Your task to perform on an android device: check the backup settings in the google photos Image 0: 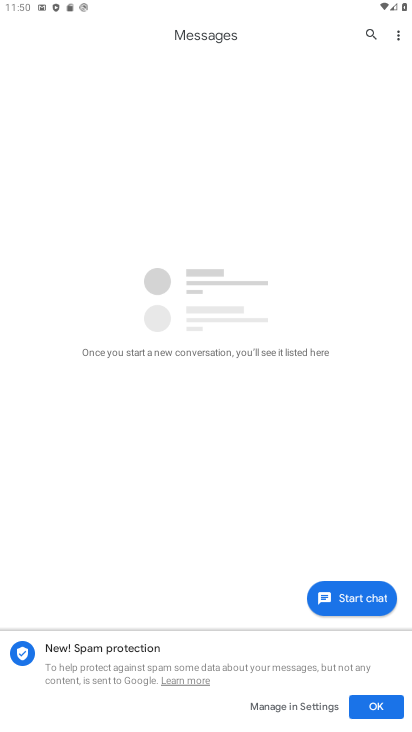
Step 0: press home button
Your task to perform on an android device: check the backup settings in the google photos Image 1: 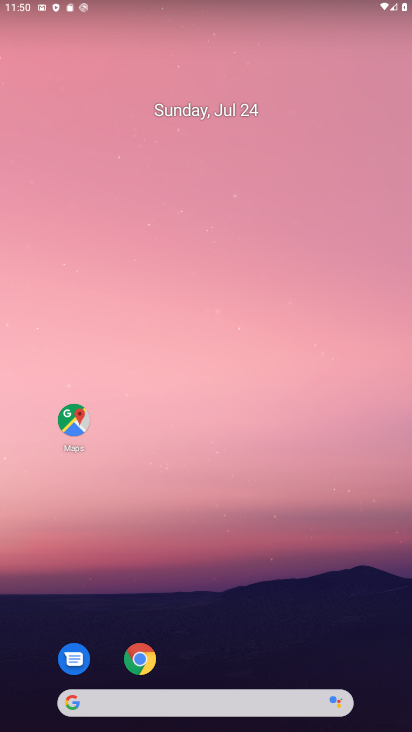
Step 1: drag from (212, 662) to (215, 79)
Your task to perform on an android device: check the backup settings in the google photos Image 2: 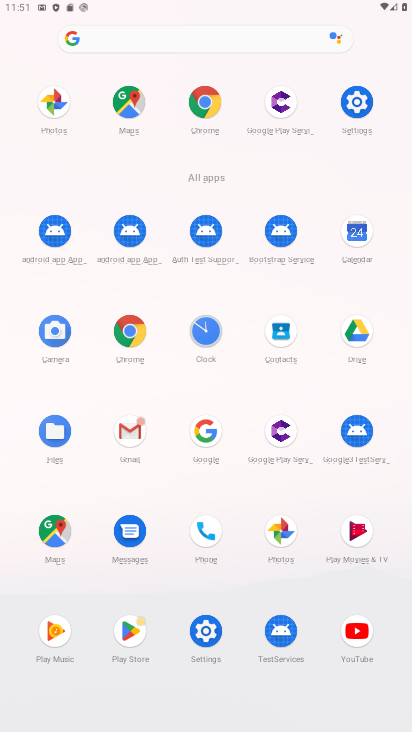
Step 2: click (283, 528)
Your task to perform on an android device: check the backup settings in the google photos Image 3: 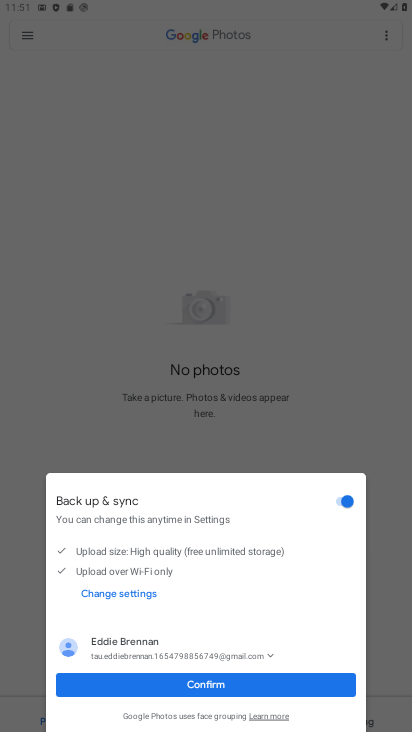
Step 3: click (212, 683)
Your task to perform on an android device: check the backup settings in the google photos Image 4: 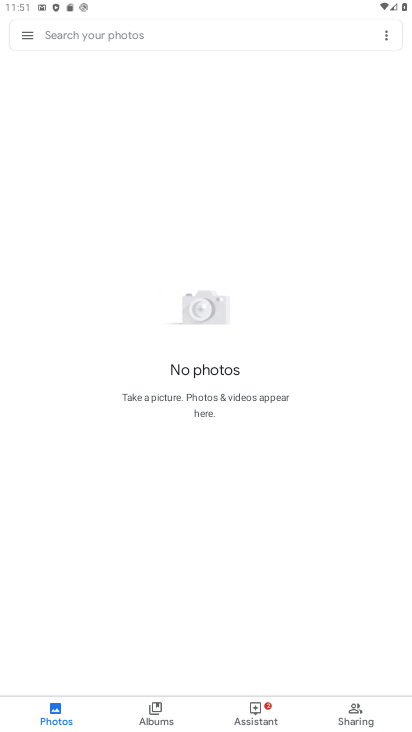
Step 4: click (28, 36)
Your task to perform on an android device: check the backup settings in the google photos Image 5: 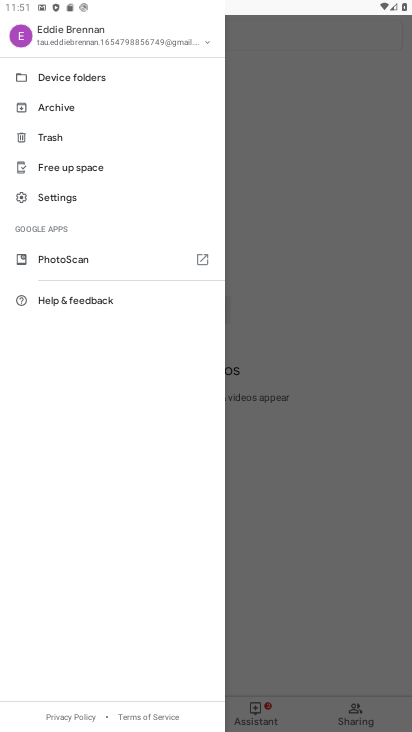
Step 5: click (61, 194)
Your task to perform on an android device: check the backup settings in the google photos Image 6: 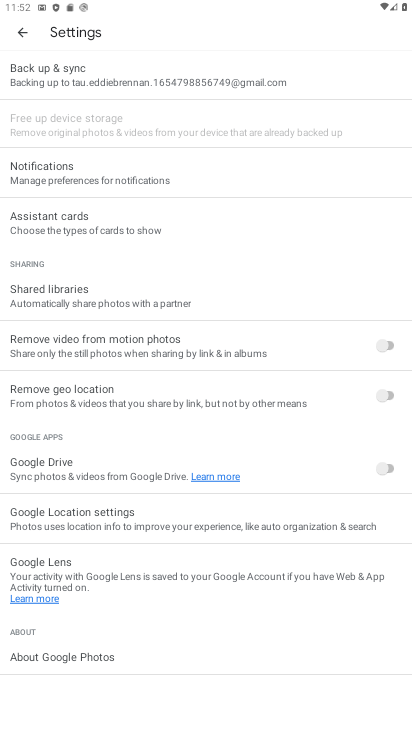
Step 6: click (57, 78)
Your task to perform on an android device: check the backup settings in the google photos Image 7: 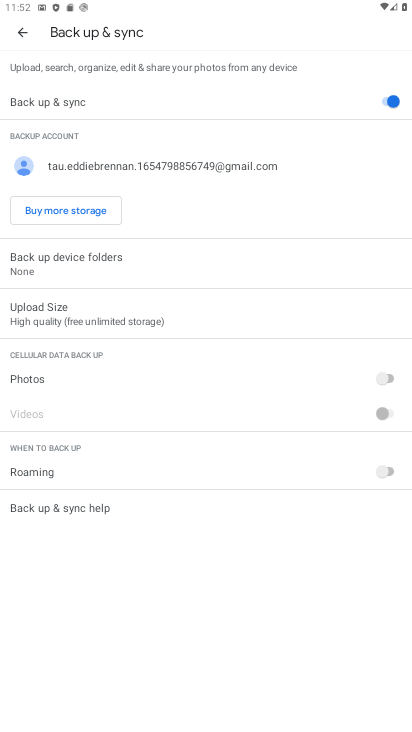
Step 7: task complete